Your task to perform on an android device: Clear all items from cart on target. Search for "logitech g pro" on target, select the first entry, and add it to the cart. Image 0: 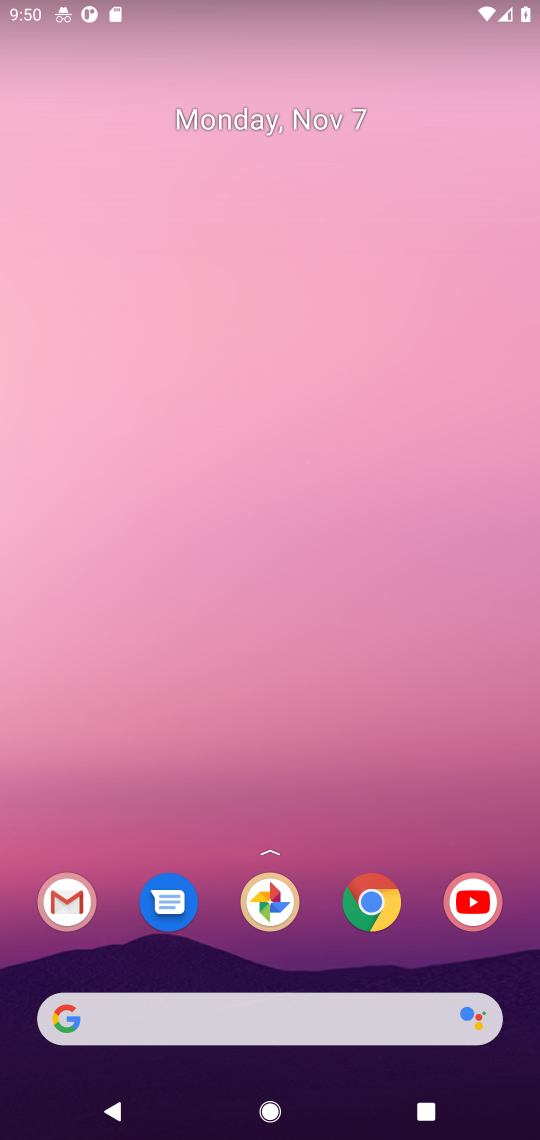
Step 0: click (370, 901)
Your task to perform on an android device: Clear all items from cart on target. Search for "logitech g pro" on target, select the first entry, and add it to the cart. Image 1: 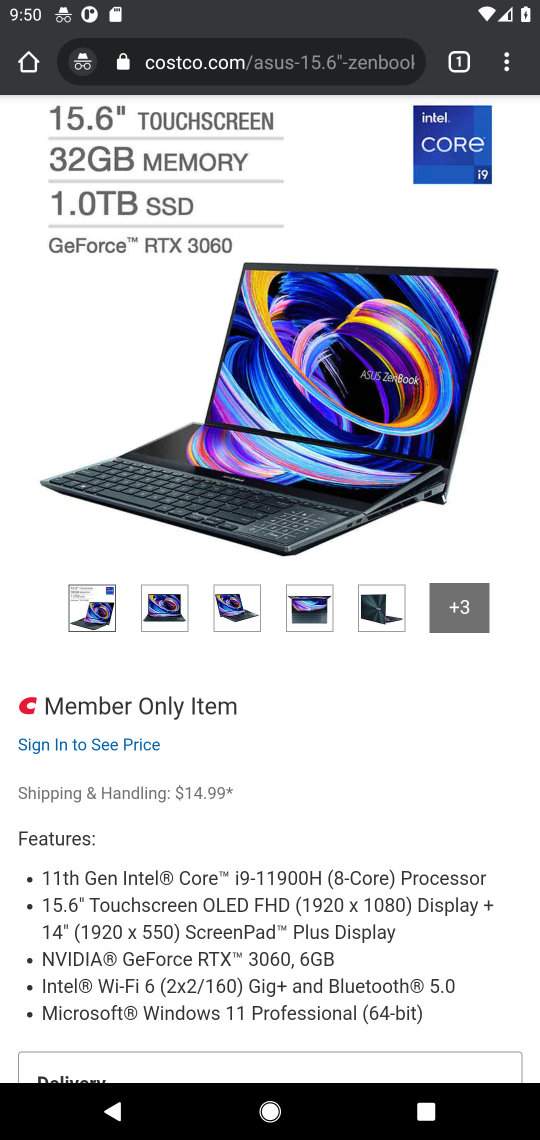
Step 1: click (197, 69)
Your task to perform on an android device: Clear all items from cart on target. Search for "logitech g pro" on target, select the first entry, and add it to the cart. Image 2: 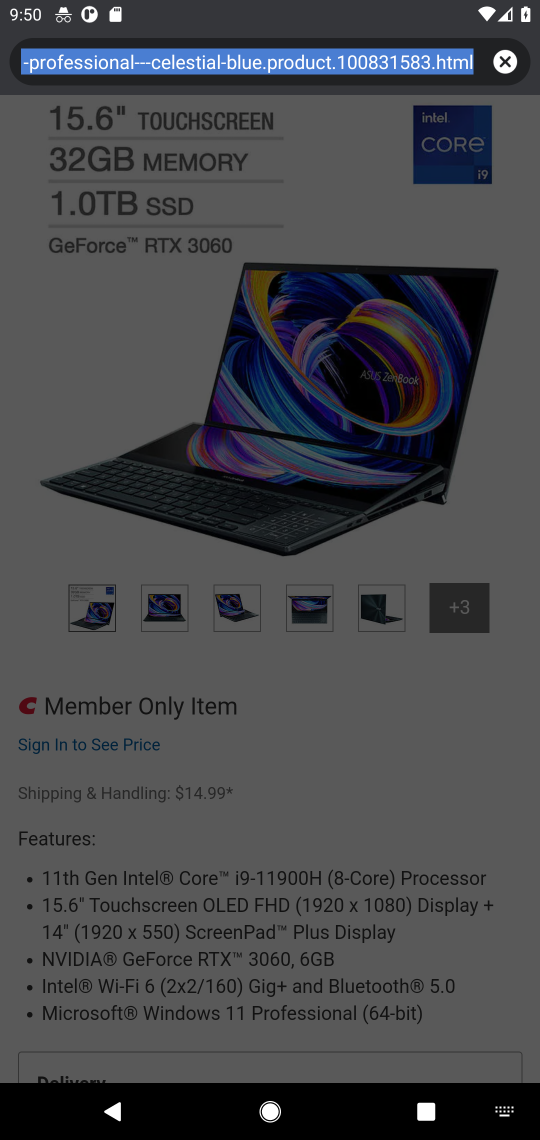
Step 2: type "target.com"
Your task to perform on an android device: Clear all items from cart on target. Search for "logitech g pro" on target, select the first entry, and add it to the cart. Image 3: 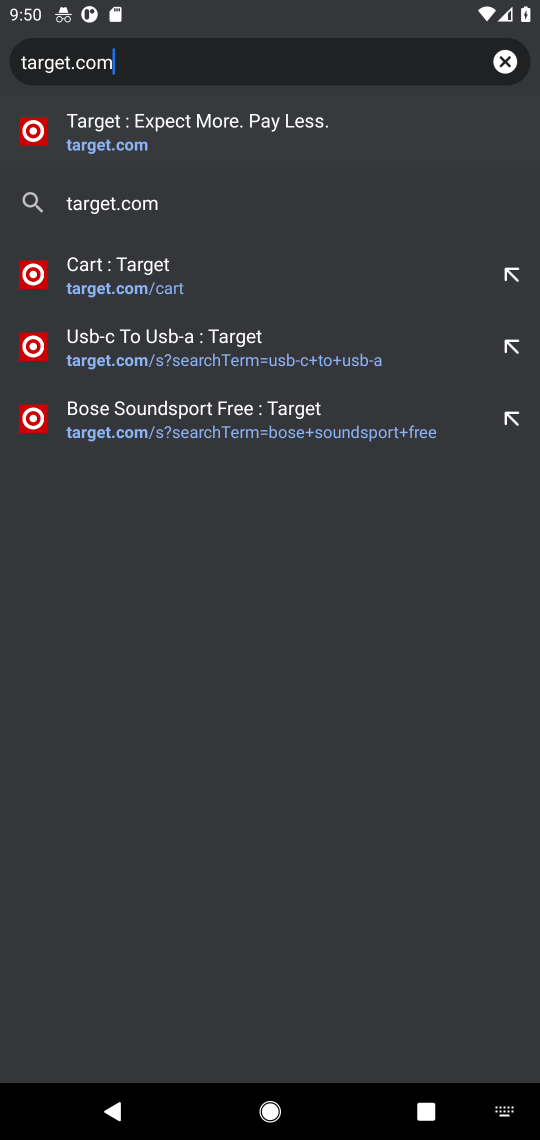
Step 3: click (127, 157)
Your task to perform on an android device: Clear all items from cart on target. Search for "logitech g pro" on target, select the first entry, and add it to the cart. Image 4: 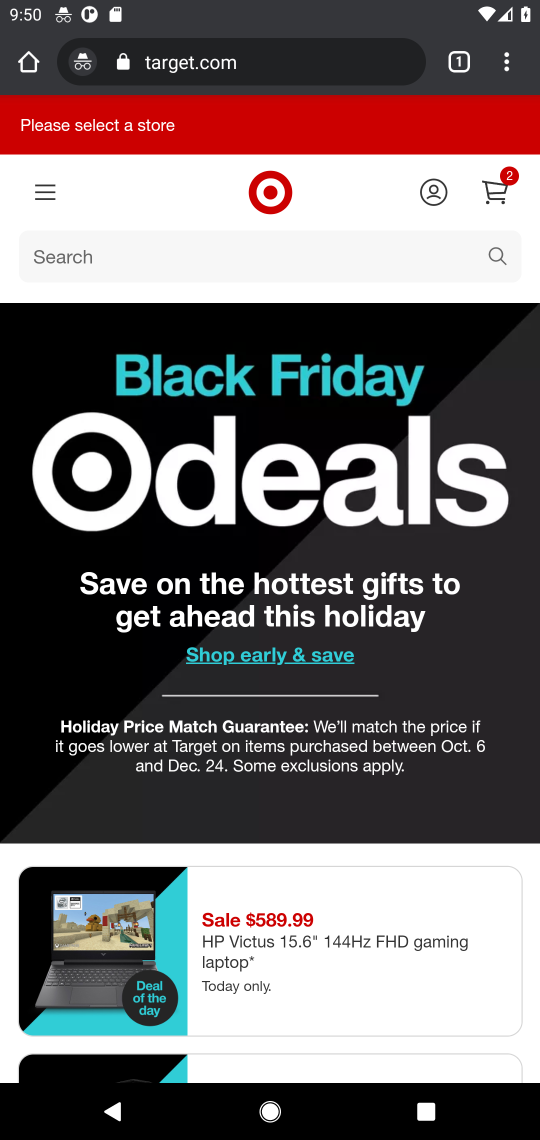
Step 4: click (499, 193)
Your task to perform on an android device: Clear all items from cart on target. Search for "logitech g pro" on target, select the first entry, and add it to the cart. Image 5: 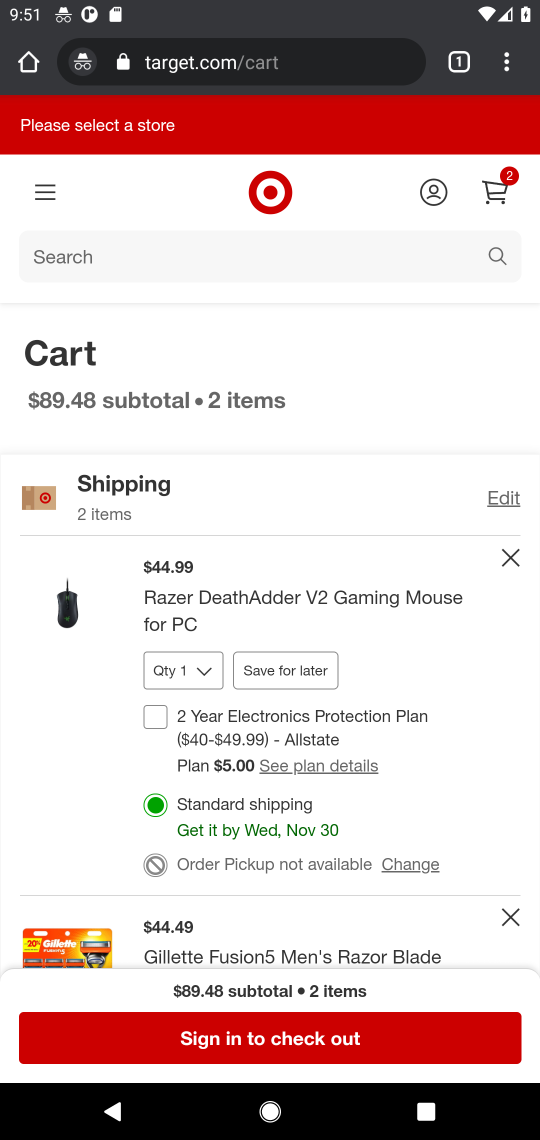
Step 5: click (504, 563)
Your task to perform on an android device: Clear all items from cart on target. Search for "logitech g pro" on target, select the first entry, and add it to the cart. Image 6: 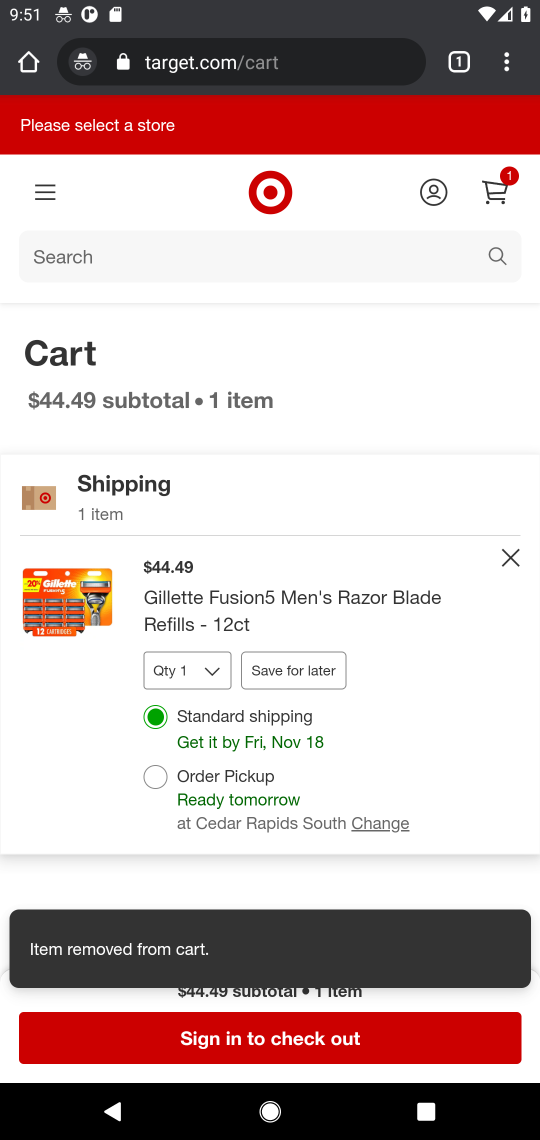
Step 6: click (504, 563)
Your task to perform on an android device: Clear all items from cart on target. Search for "logitech g pro" on target, select the first entry, and add it to the cart. Image 7: 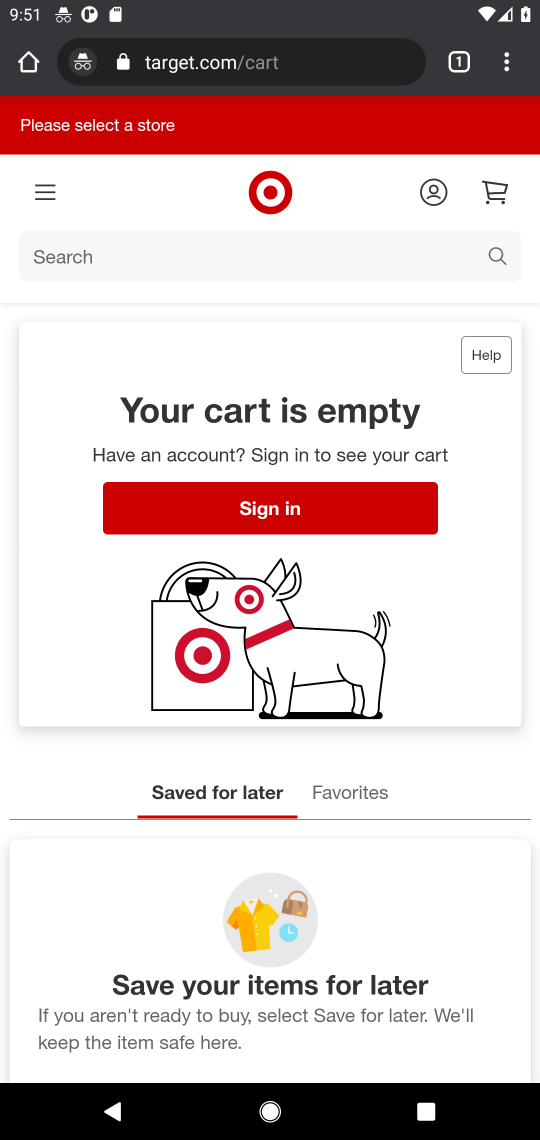
Step 7: click (490, 261)
Your task to perform on an android device: Clear all items from cart on target. Search for "logitech g pro" on target, select the first entry, and add it to the cart. Image 8: 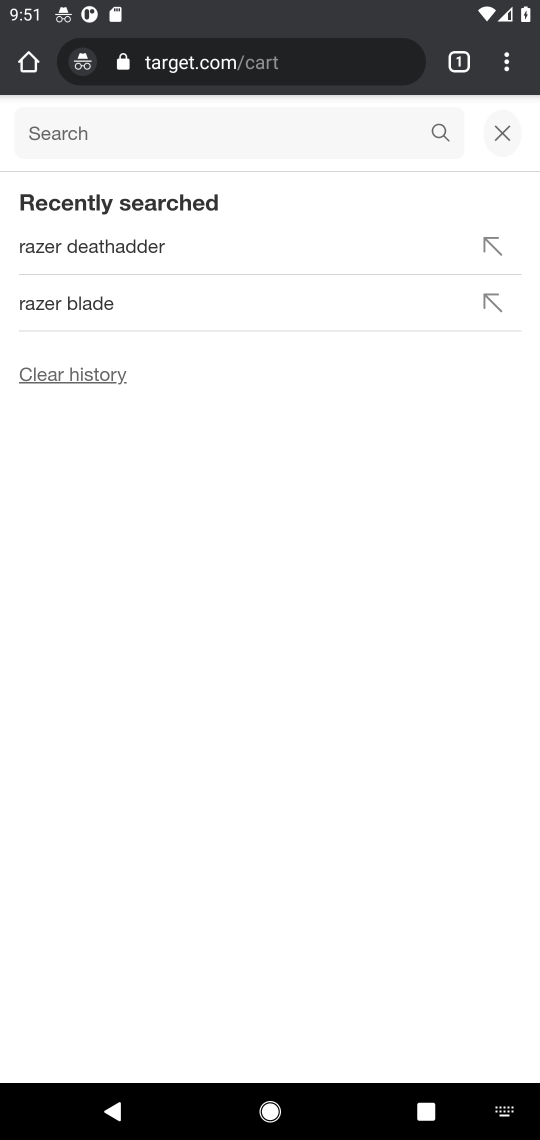
Step 8: type "logitech g pro"
Your task to perform on an android device: Clear all items from cart on target. Search for "logitech g pro" on target, select the first entry, and add it to the cart. Image 9: 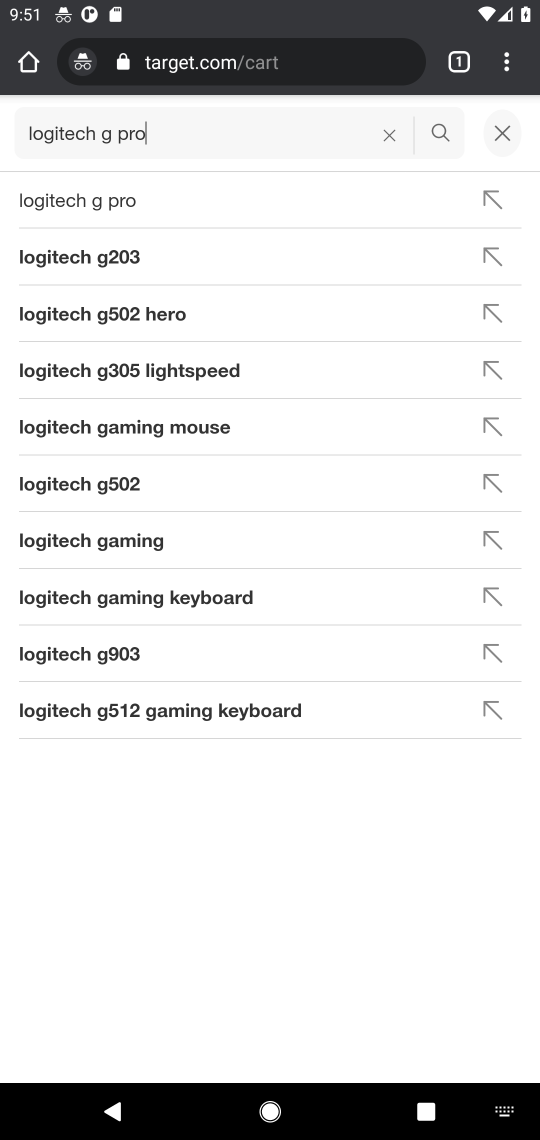
Step 9: click (51, 206)
Your task to perform on an android device: Clear all items from cart on target. Search for "logitech g pro" on target, select the first entry, and add it to the cart. Image 10: 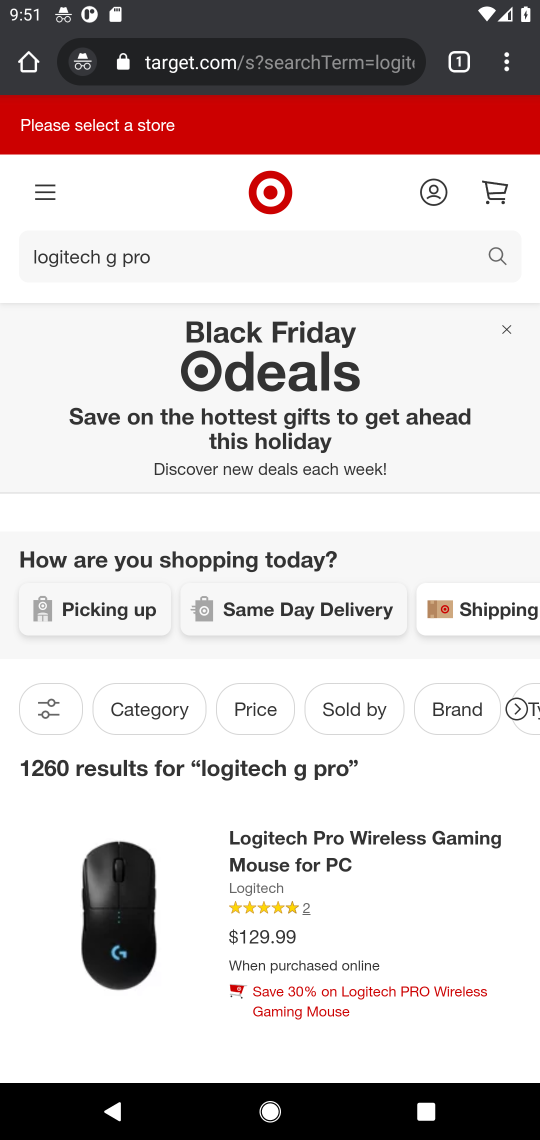
Step 10: task complete